Your task to perform on an android device: turn on the 12-hour format for clock Image 0: 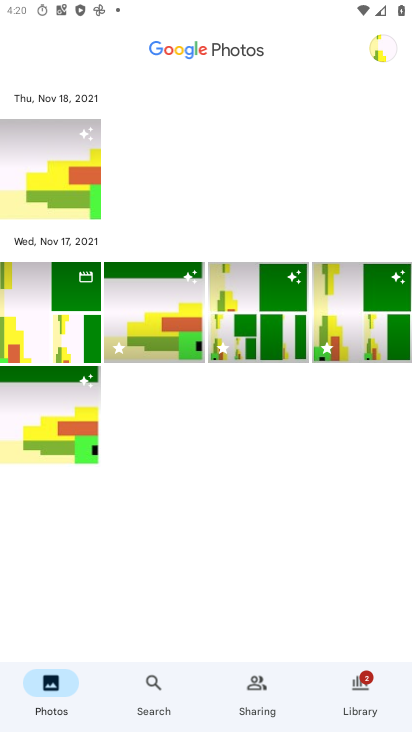
Step 0: press home button
Your task to perform on an android device: turn on the 12-hour format for clock Image 1: 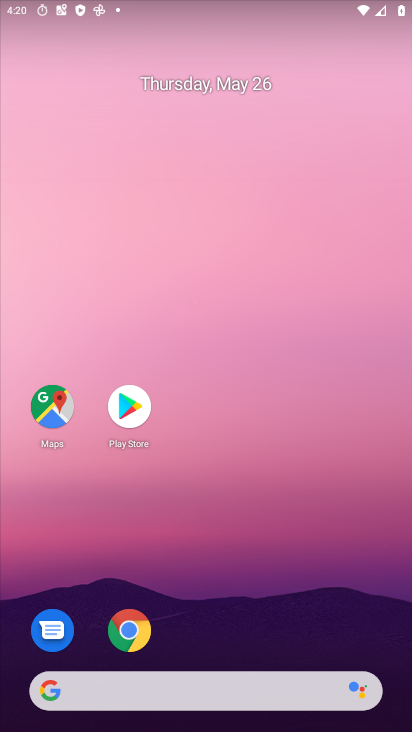
Step 1: drag from (309, 602) to (397, 128)
Your task to perform on an android device: turn on the 12-hour format for clock Image 2: 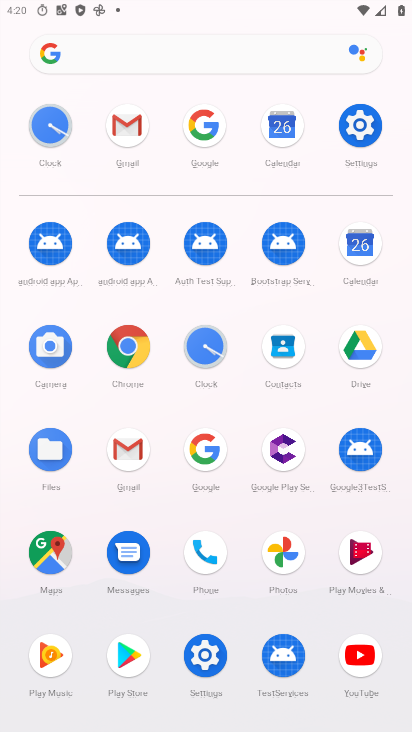
Step 2: click (213, 338)
Your task to perform on an android device: turn on the 12-hour format for clock Image 3: 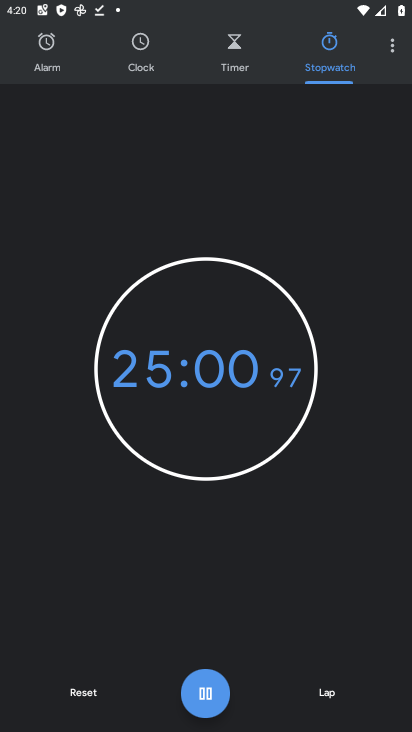
Step 3: click (398, 40)
Your task to perform on an android device: turn on the 12-hour format for clock Image 4: 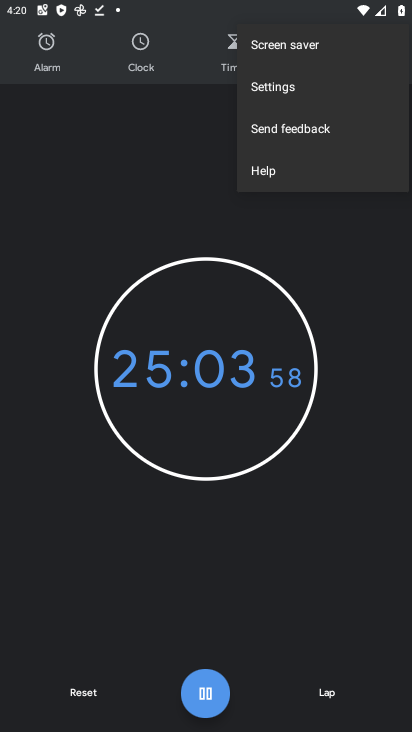
Step 4: click (273, 91)
Your task to perform on an android device: turn on the 12-hour format for clock Image 5: 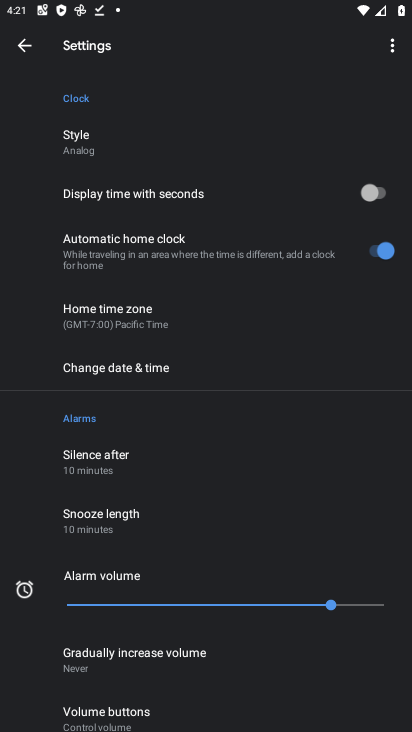
Step 5: click (125, 365)
Your task to perform on an android device: turn on the 12-hour format for clock Image 6: 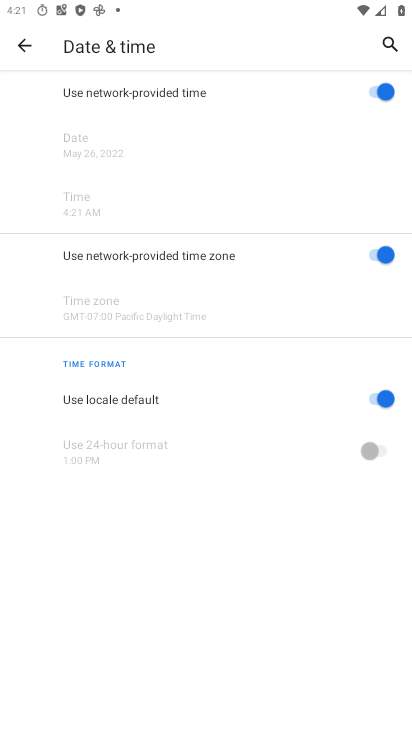
Step 6: task complete